Your task to perform on an android device: open app "HBO Max: Stream TV & Movies" (install if not already installed) and go to login screen Image 0: 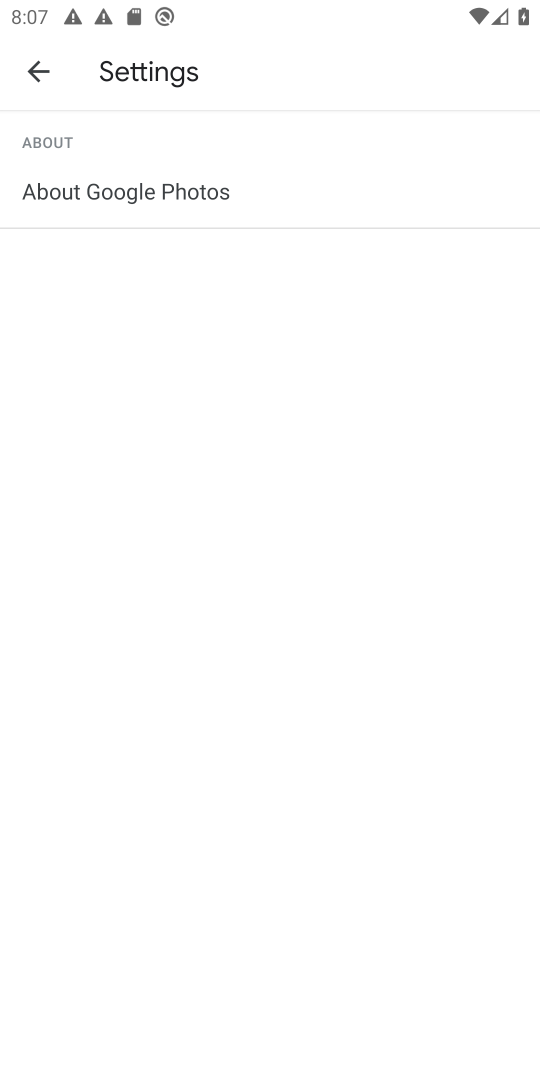
Step 0: press home button
Your task to perform on an android device: open app "HBO Max: Stream TV & Movies" (install if not already installed) and go to login screen Image 1: 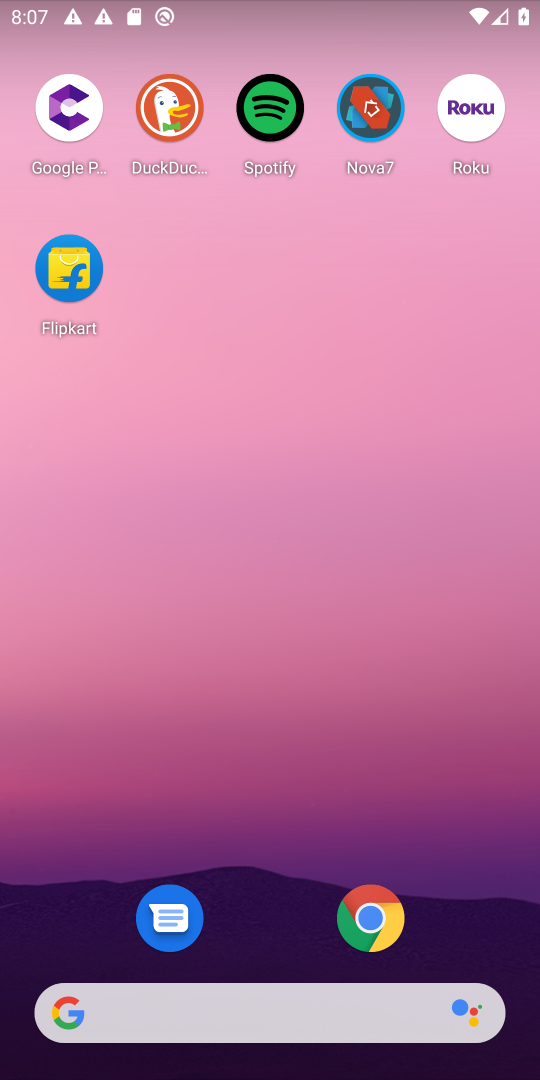
Step 1: press home button
Your task to perform on an android device: open app "HBO Max: Stream TV & Movies" (install if not already installed) and go to login screen Image 2: 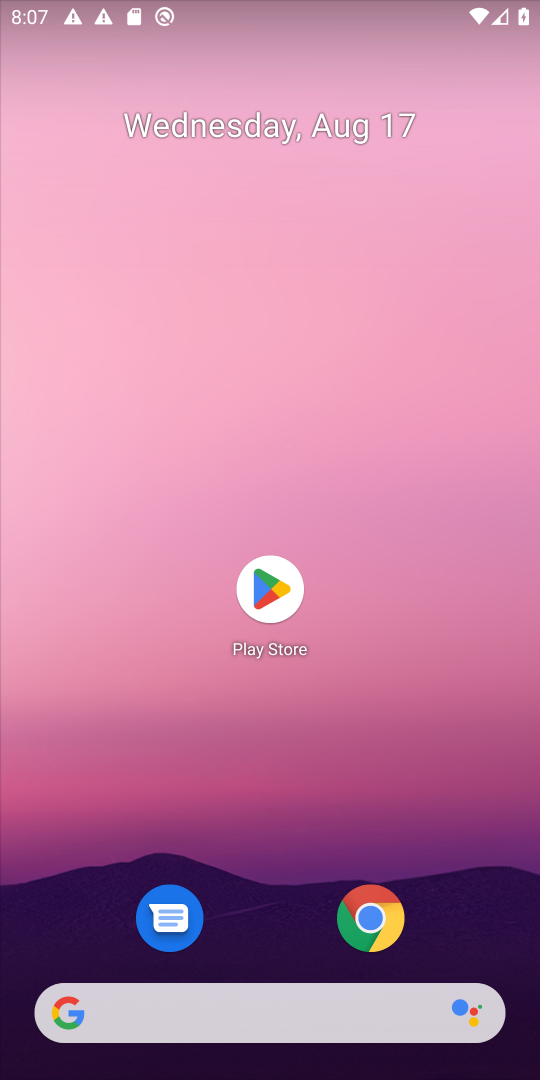
Step 2: click (247, 587)
Your task to perform on an android device: open app "HBO Max: Stream TV & Movies" (install if not already installed) and go to login screen Image 3: 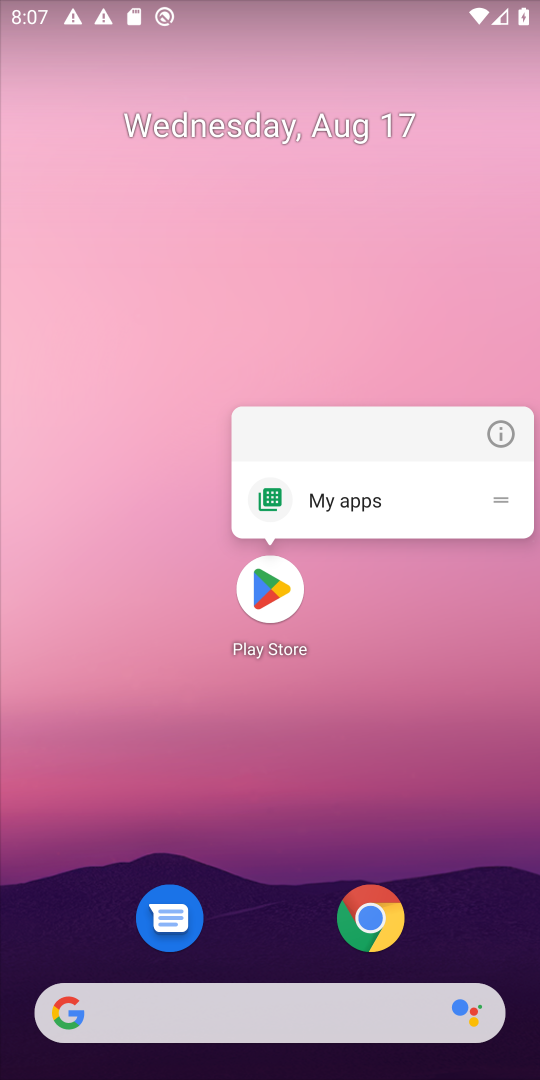
Step 3: click (279, 588)
Your task to perform on an android device: open app "HBO Max: Stream TV & Movies" (install if not already installed) and go to login screen Image 4: 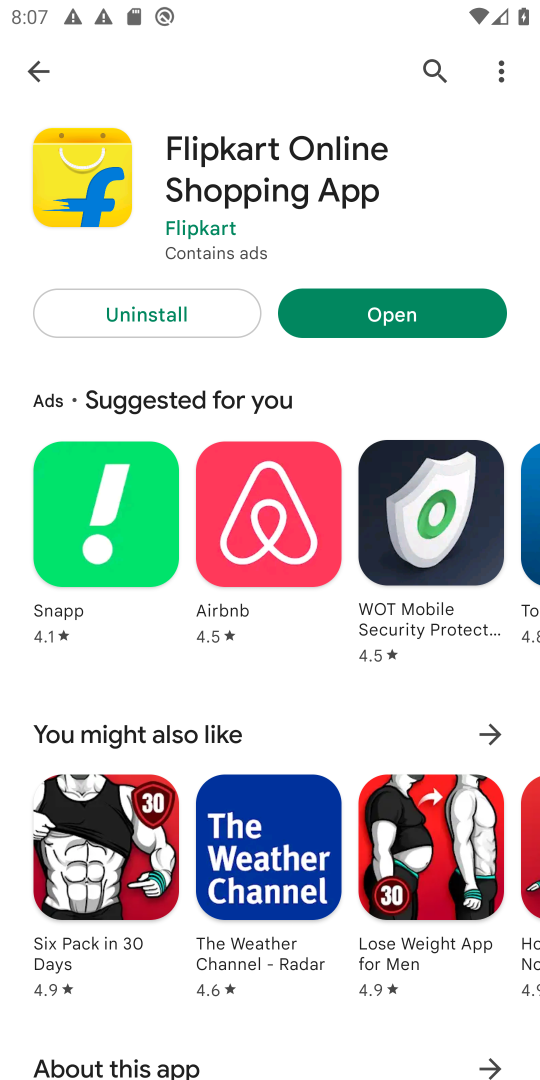
Step 4: click (434, 66)
Your task to perform on an android device: open app "HBO Max: Stream TV & Movies" (install if not already installed) and go to login screen Image 5: 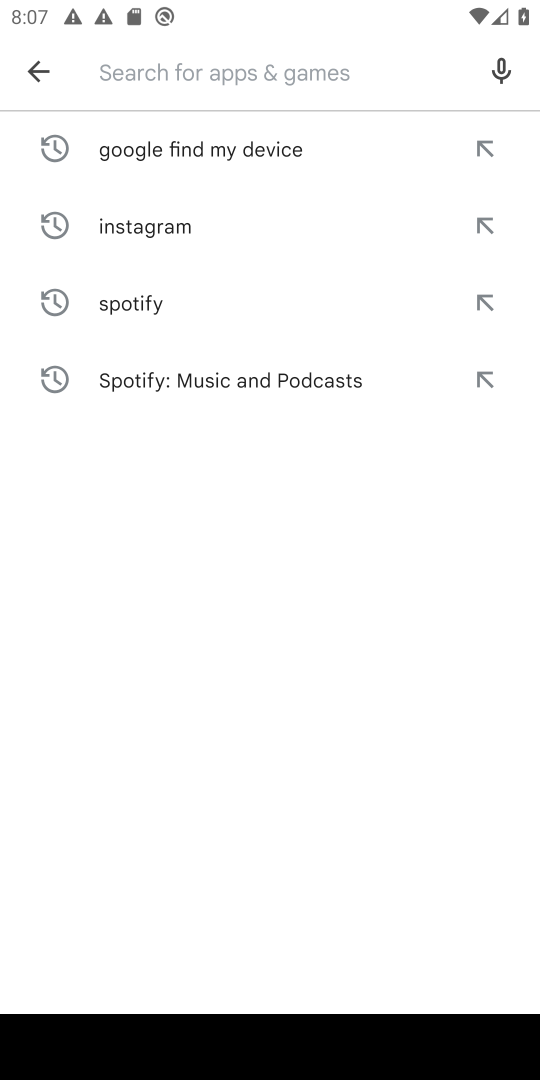
Step 5: type "HBO Max: Stream TV & Movies"
Your task to perform on an android device: open app "HBO Max: Stream TV & Movies" (install if not already installed) and go to login screen Image 6: 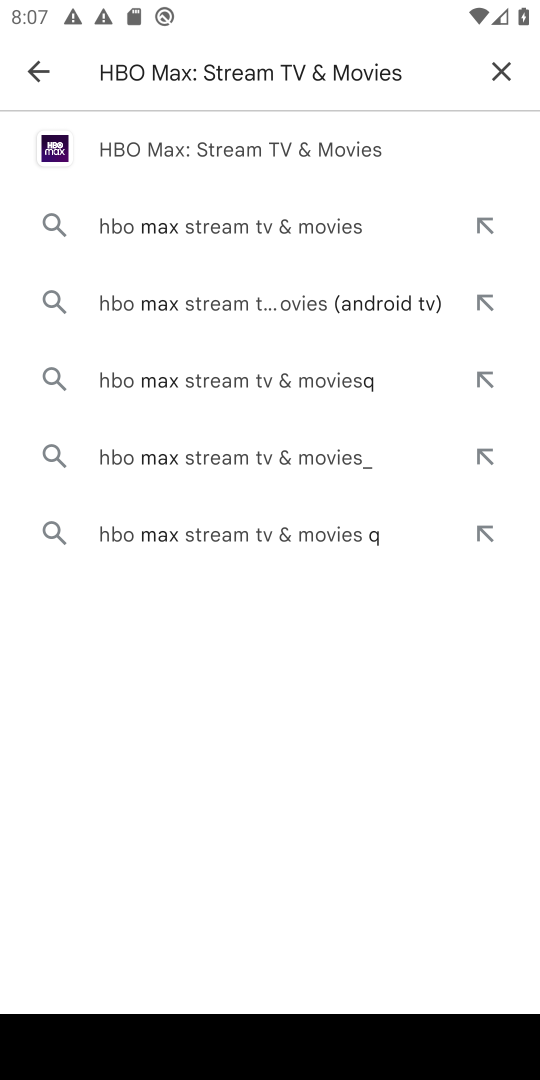
Step 6: click (296, 151)
Your task to perform on an android device: open app "HBO Max: Stream TV & Movies" (install if not already installed) and go to login screen Image 7: 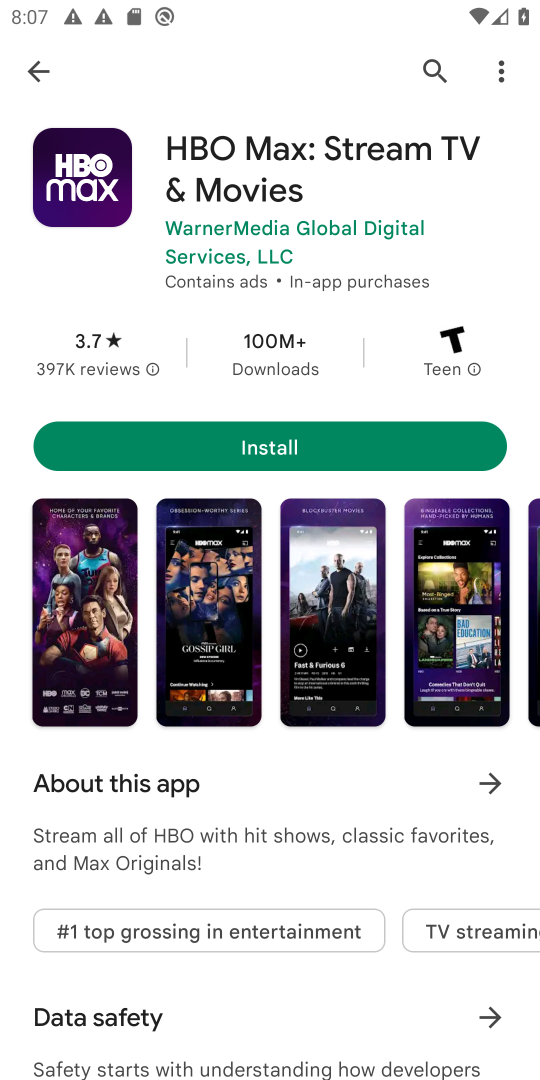
Step 7: click (269, 443)
Your task to perform on an android device: open app "HBO Max: Stream TV & Movies" (install if not already installed) and go to login screen Image 8: 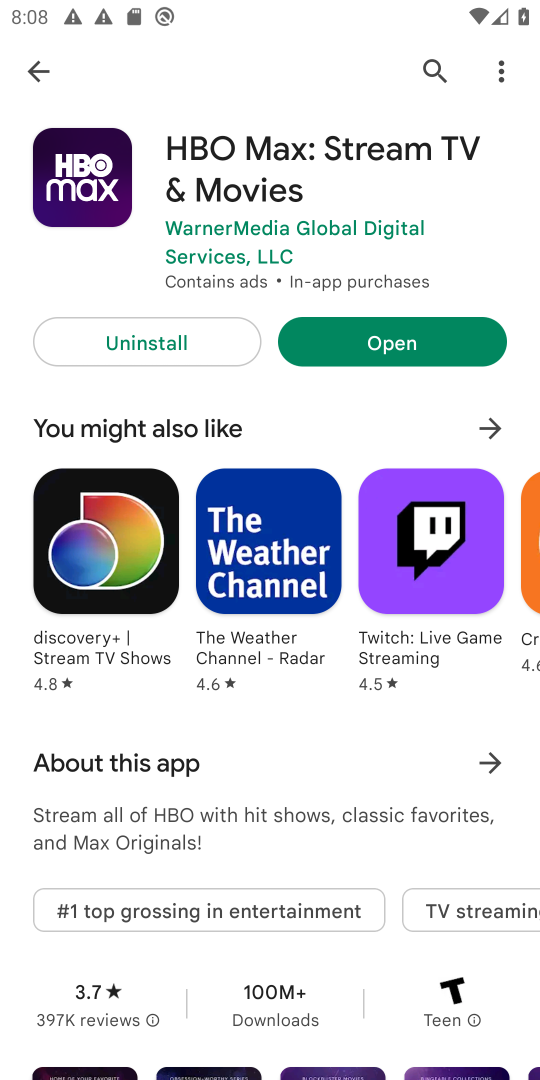
Step 8: click (433, 342)
Your task to perform on an android device: open app "HBO Max: Stream TV & Movies" (install if not already installed) and go to login screen Image 9: 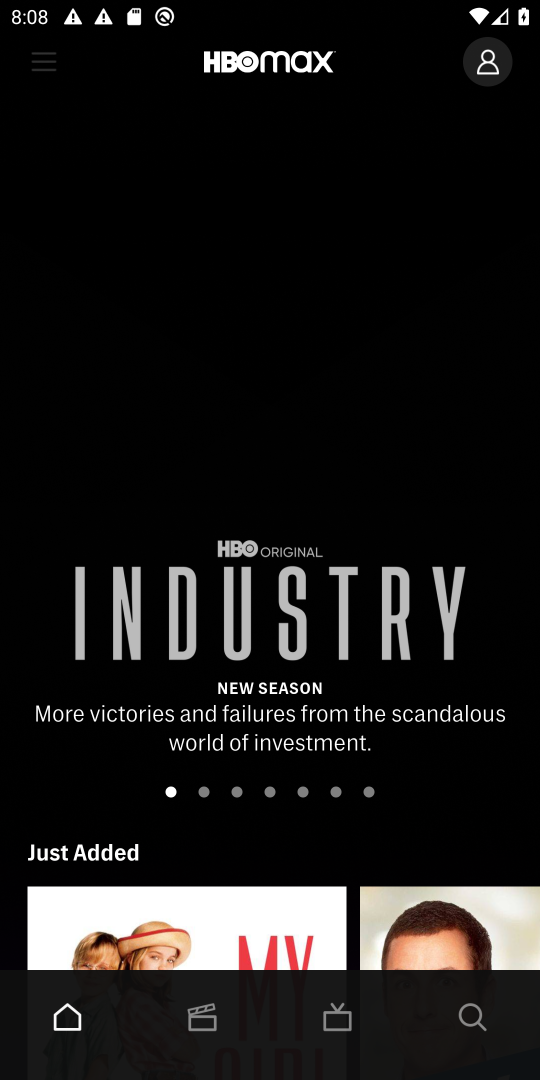
Step 9: task complete